Your task to perform on an android device: Find coffee shops on Maps Image 0: 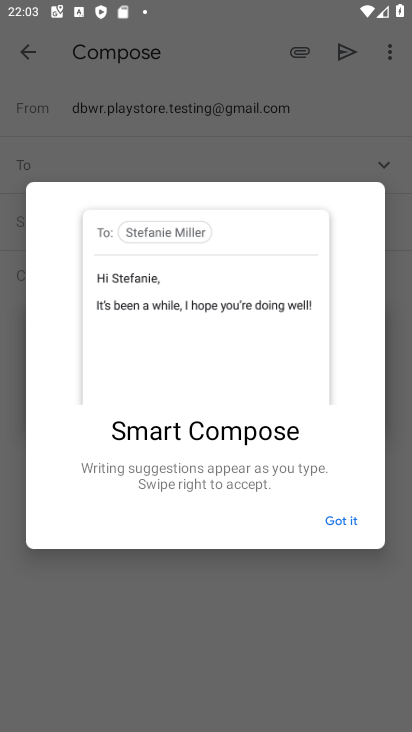
Step 0: press home button
Your task to perform on an android device: Find coffee shops on Maps Image 1: 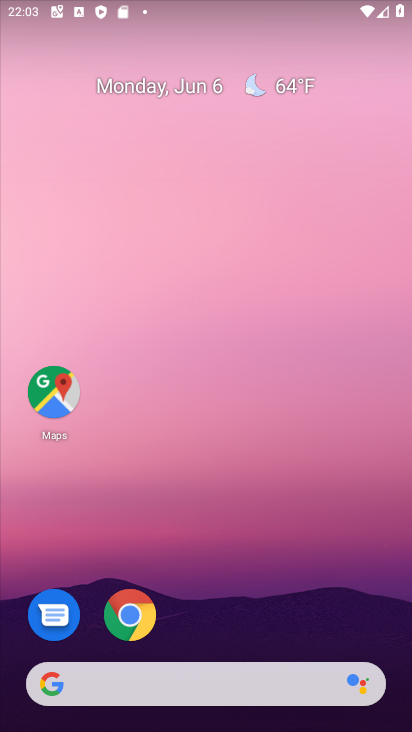
Step 1: click (59, 385)
Your task to perform on an android device: Find coffee shops on Maps Image 2: 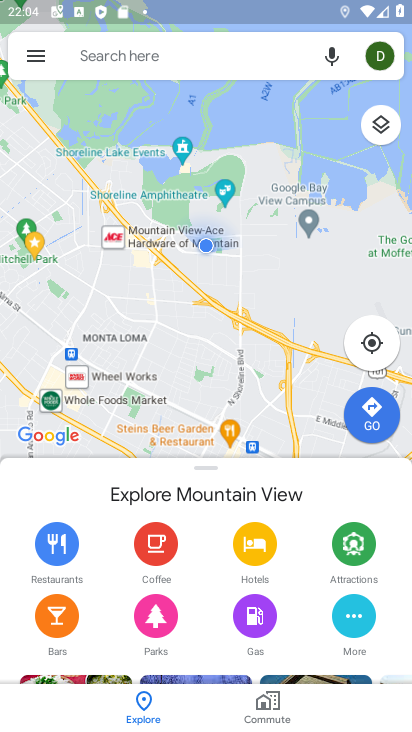
Step 2: click (104, 45)
Your task to perform on an android device: Find coffee shops on Maps Image 3: 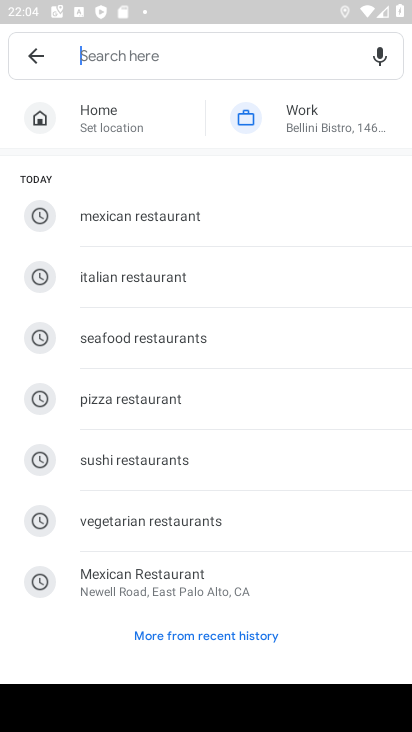
Step 3: type "coffee shops"
Your task to perform on an android device: Find coffee shops on Maps Image 4: 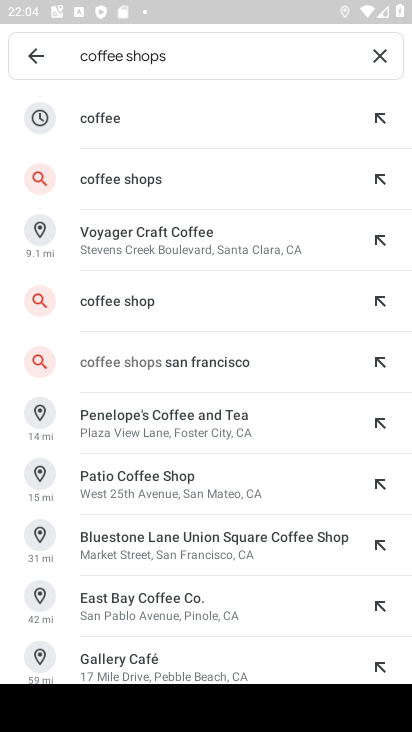
Step 4: click (145, 177)
Your task to perform on an android device: Find coffee shops on Maps Image 5: 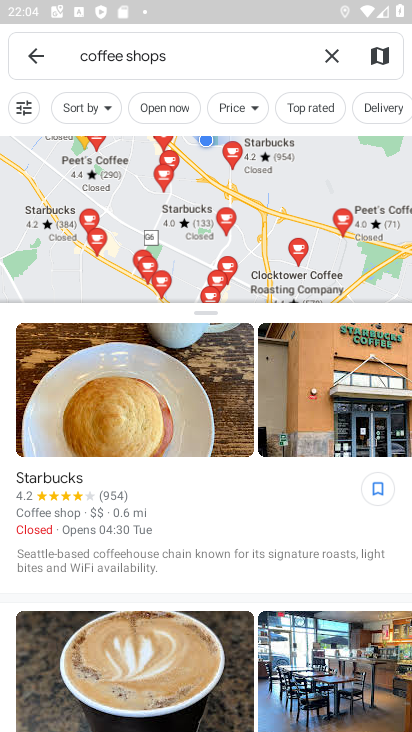
Step 5: task complete